Your task to perform on an android device: Open internet settings Image 0: 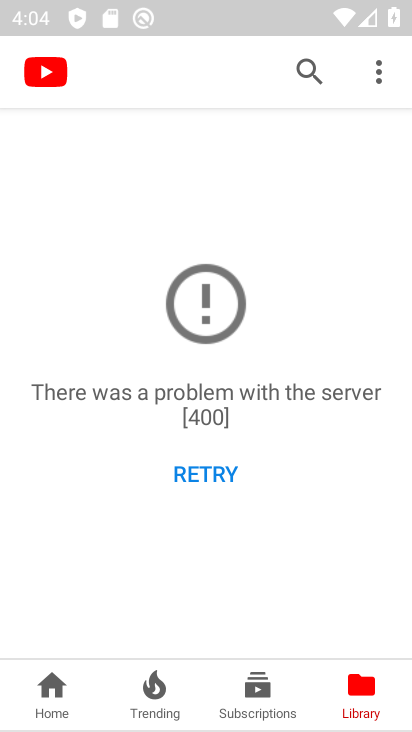
Step 0: press home button
Your task to perform on an android device: Open internet settings Image 1: 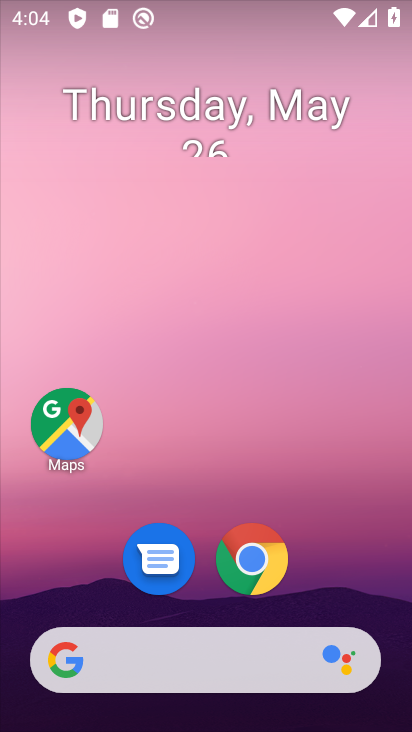
Step 1: drag from (340, 508) to (212, 10)
Your task to perform on an android device: Open internet settings Image 2: 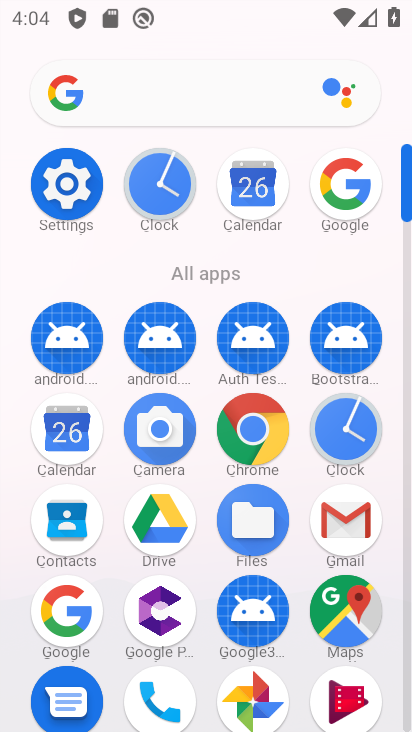
Step 2: click (74, 227)
Your task to perform on an android device: Open internet settings Image 3: 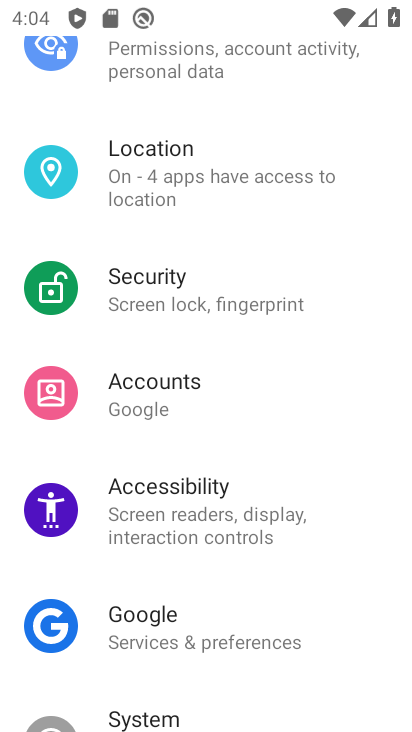
Step 3: drag from (241, 127) to (269, 725)
Your task to perform on an android device: Open internet settings Image 4: 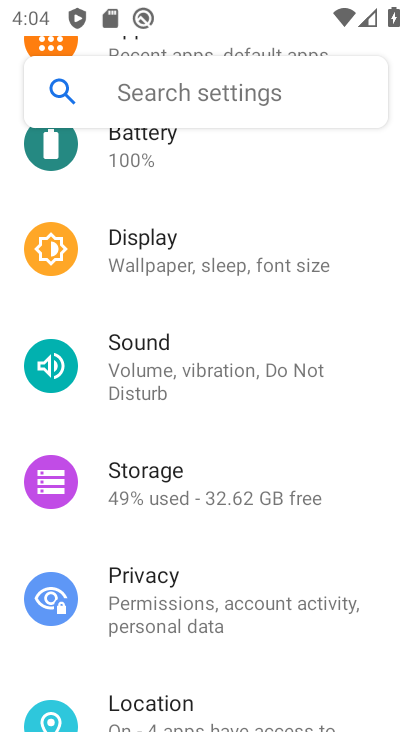
Step 4: drag from (239, 181) to (211, 701)
Your task to perform on an android device: Open internet settings Image 5: 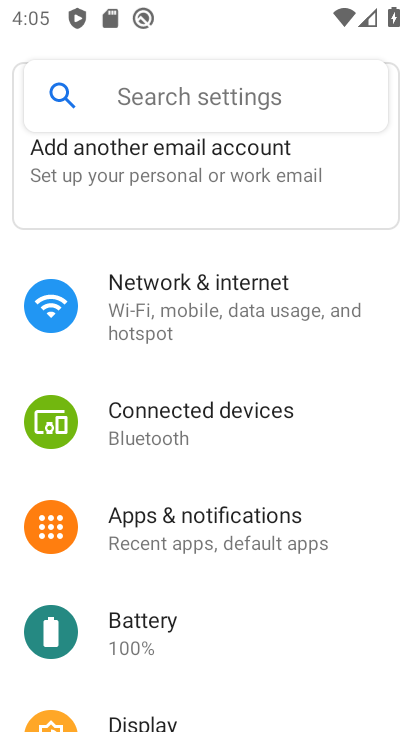
Step 5: click (187, 271)
Your task to perform on an android device: Open internet settings Image 6: 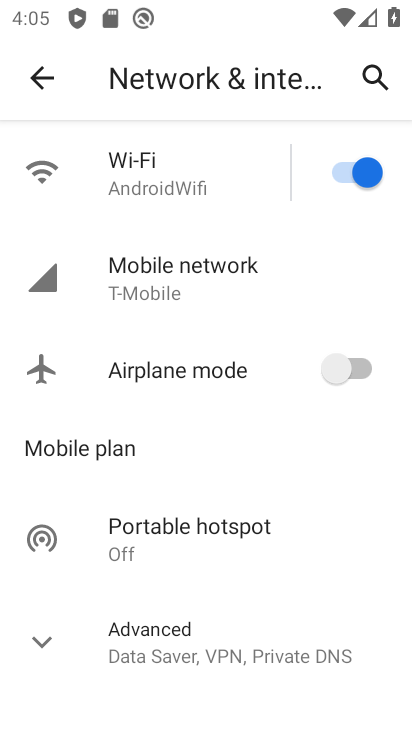
Step 6: click (200, 287)
Your task to perform on an android device: Open internet settings Image 7: 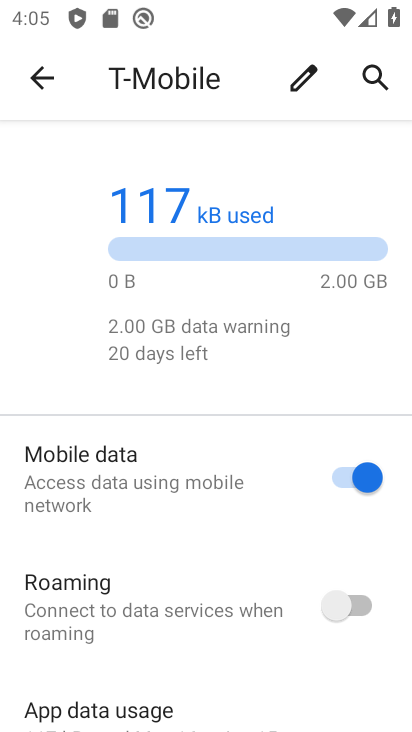
Step 7: task complete